Your task to perform on an android device: Open ESPN.com Image 0: 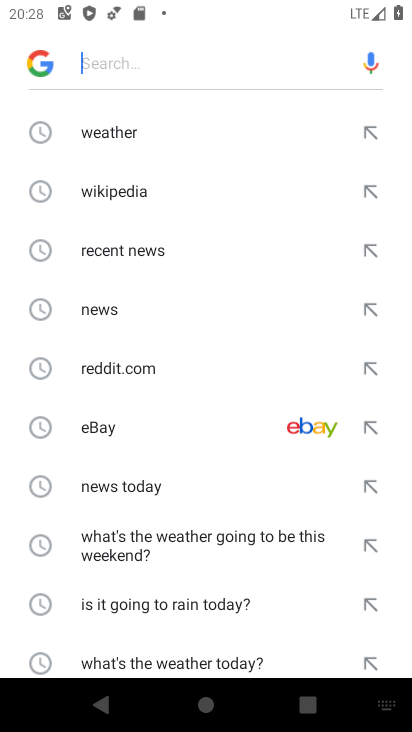
Step 0: press home button
Your task to perform on an android device: Open ESPN.com Image 1: 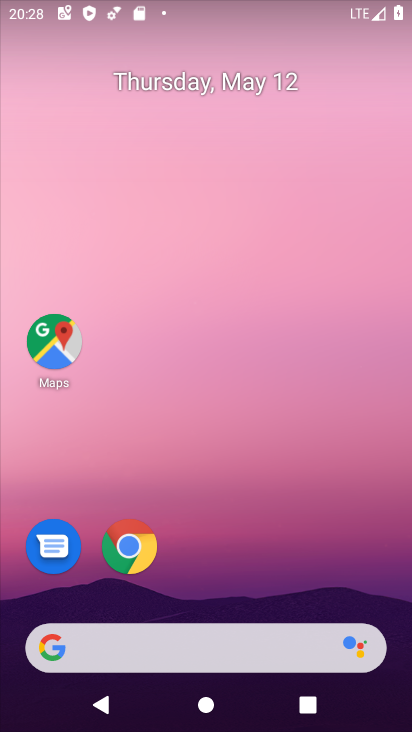
Step 1: click (126, 553)
Your task to perform on an android device: Open ESPN.com Image 2: 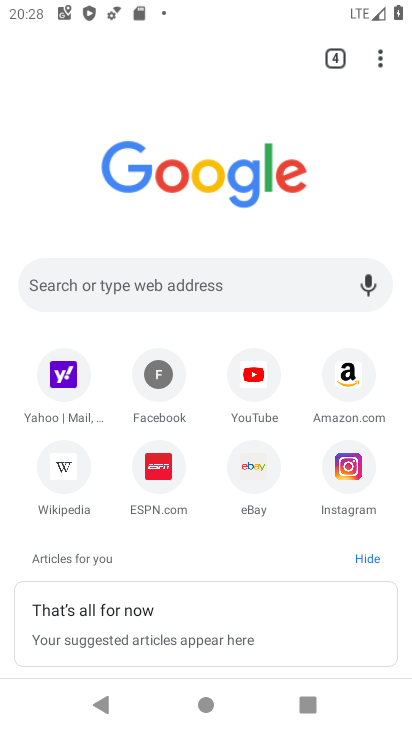
Step 2: click (164, 469)
Your task to perform on an android device: Open ESPN.com Image 3: 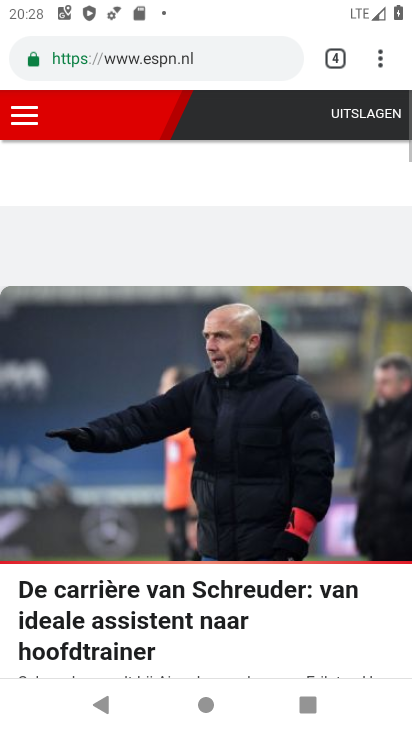
Step 3: task complete